Your task to perform on an android device: When is my next appointment? Image 0: 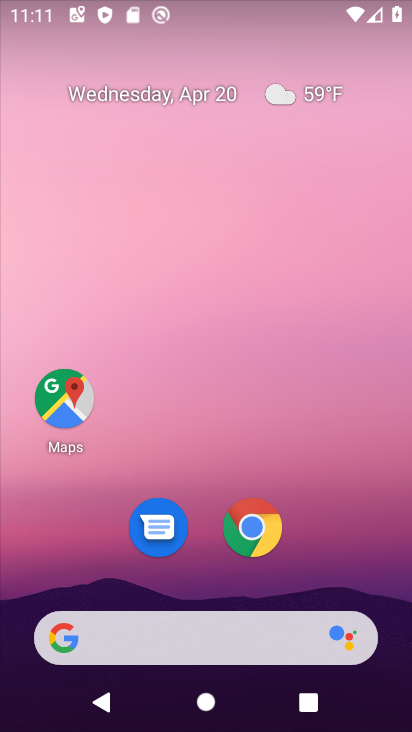
Step 0: drag from (364, 565) to (367, 164)
Your task to perform on an android device: When is my next appointment? Image 1: 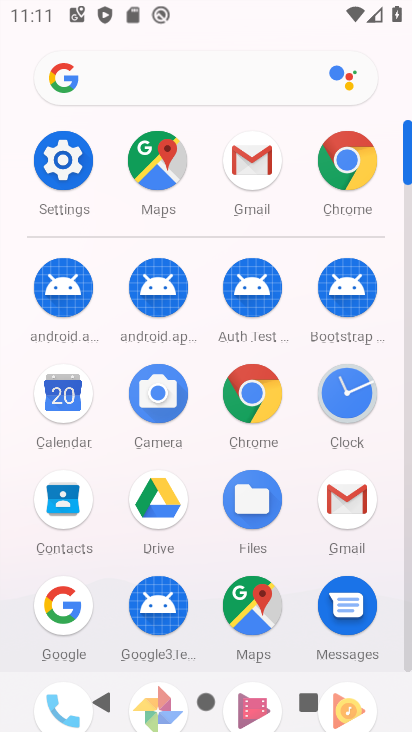
Step 1: click (71, 402)
Your task to perform on an android device: When is my next appointment? Image 2: 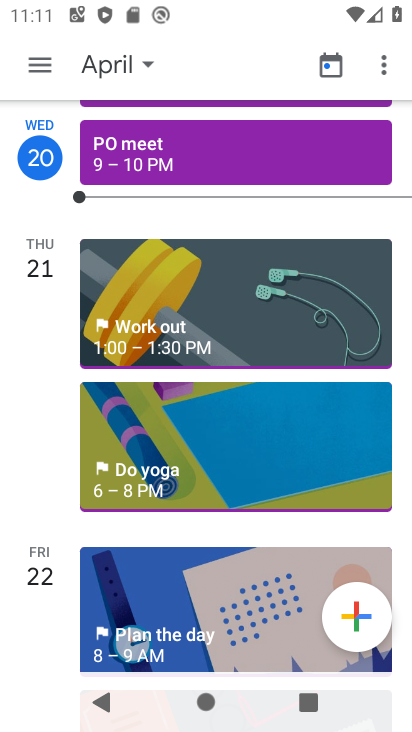
Step 2: drag from (62, 639) to (69, 303)
Your task to perform on an android device: When is my next appointment? Image 3: 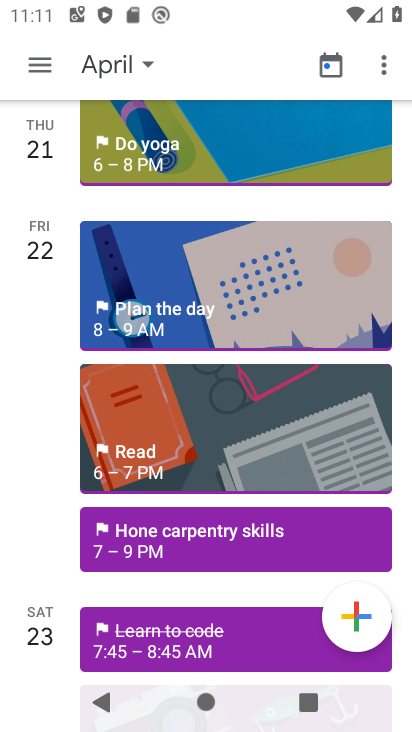
Step 3: drag from (41, 563) to (66, 296)
Your task to perform on an android device: When is my next appointment? Image 4: 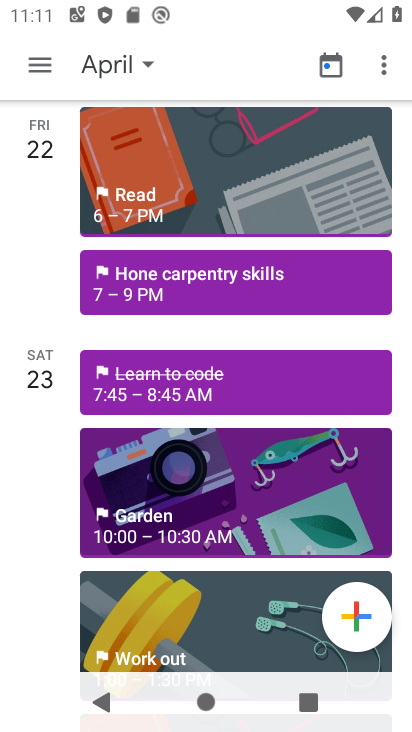
Step 4: drag from (48, 616) to (57, 386)
Your task to perform on an android device: When is my next appointment? Image 5: 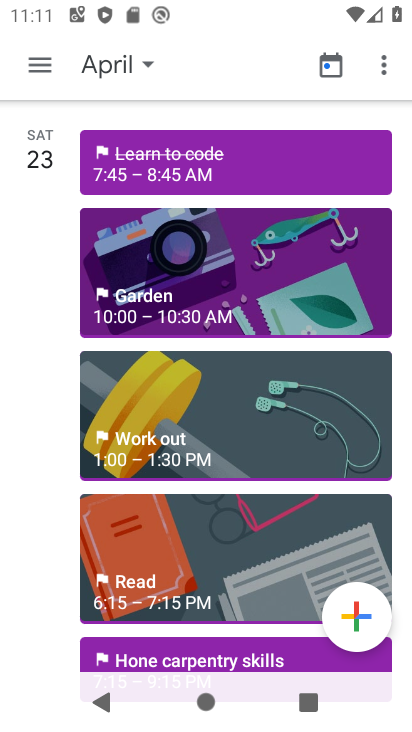
Step 5: drag from (44, 593) to (63, 367)
Your task to perform on an android device: When is my next appointment? Image 6: 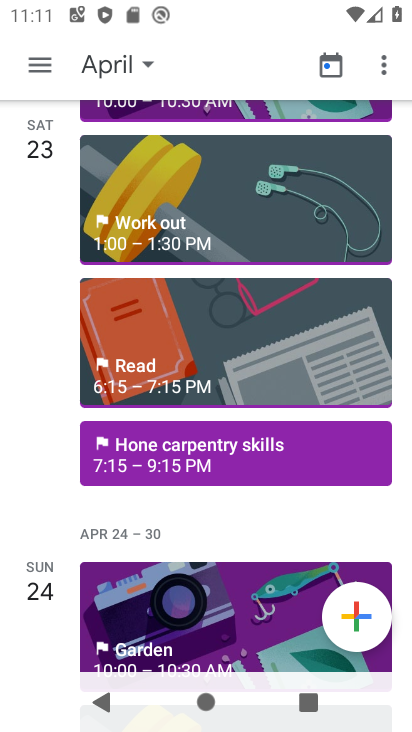
Step 6: drag from (45, 597) to (74, 369)
Your task to perform on an android device: When is my next appointment? Image 7: 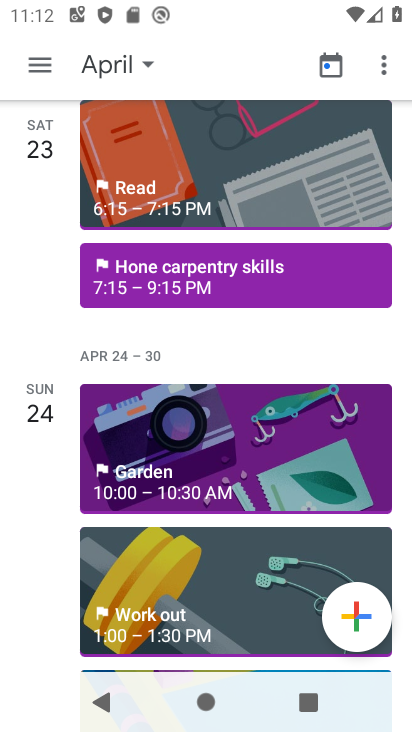
Step 7: drag from (45, 563) to (72, 333)
Your task to perform on an android device: When is my next appointment? Image 8: 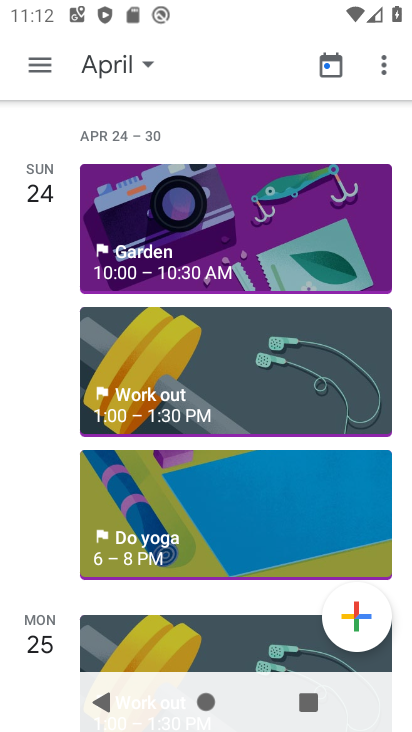
Step 8: drag from (68, 639) to (61, 362)
Your task to perform on an android device: When is my next appointment? Image 9: 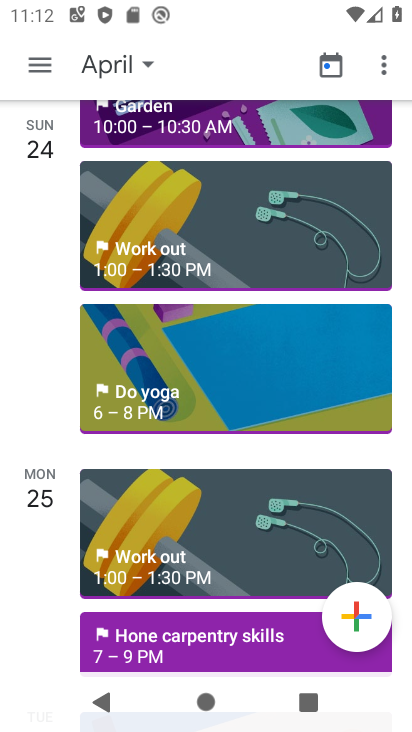
Step 9: drag from (44, 622) to (43, 342)
Your task to perform on an android device: When is my next appointment? Image 10: 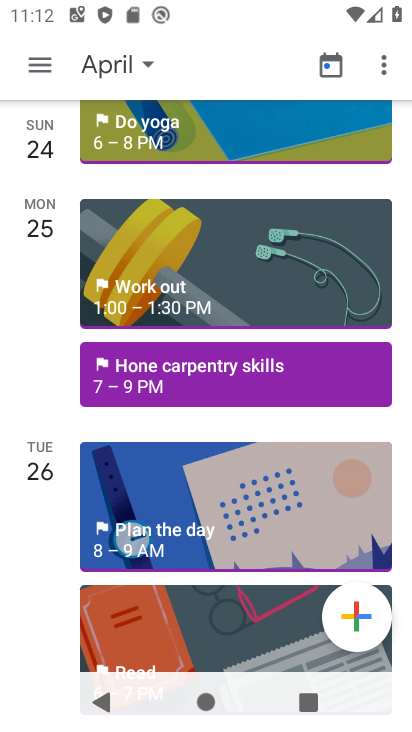
Step 10: drag from (31, 582) to (44, 367)
Your task to perform on an android device: When is my next appointment? Image 11: 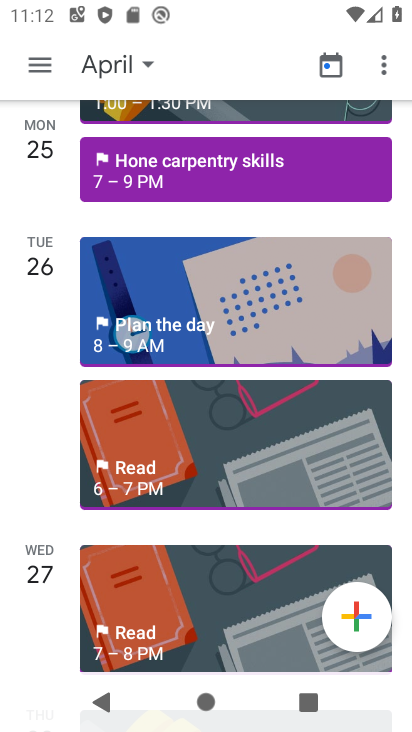
Step 11: drag from (45, 644) to (65, 343)
Your task to perform on an android device: When is my next appointment? Image 12: 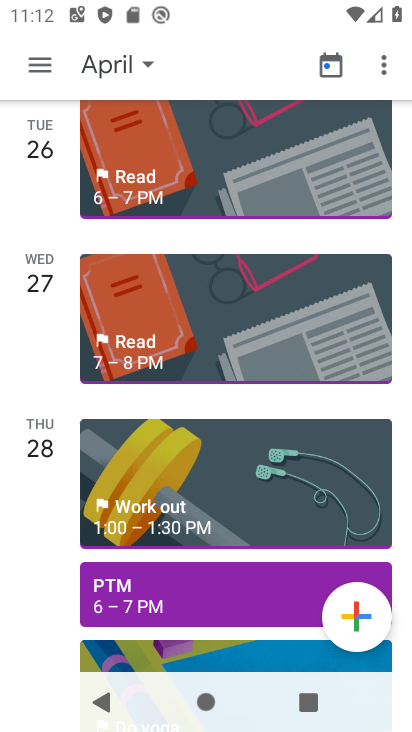
Step 12: click (147, 596)
Your task to perform on an android device: When is my next appointment? Image 13: 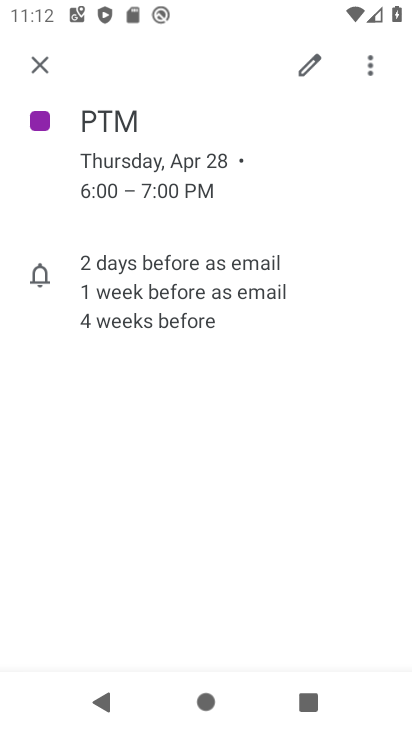
Step 13: task complete